Your task to perform on an android device: Search for seafood restaurants on Google Maps Image 0: 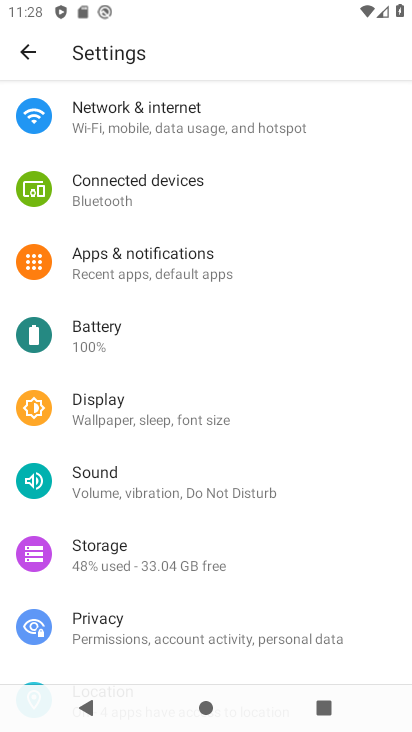
Step 0: press home button
Your task to perform on an android device: Search for seafood restaurants on Google Maps Image 1: 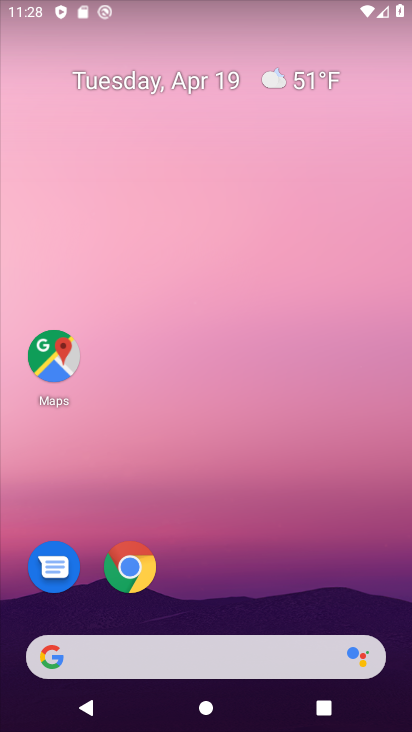
Step 1: click (56, 354)
Your task to perform on an android device: Search for seafood restaurants on Google Maps Image 2: 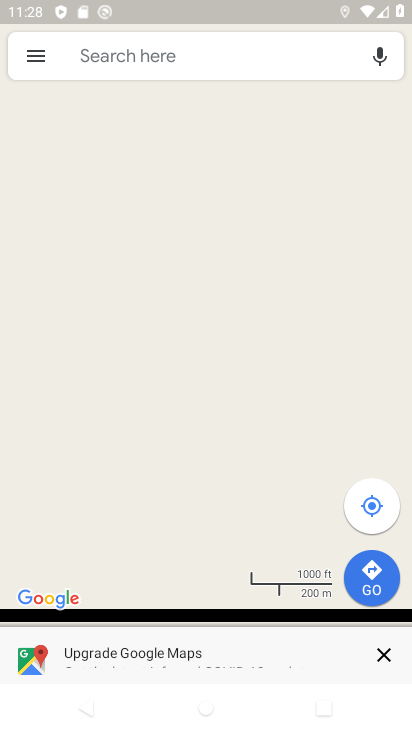
Step 2: click (189, 49)
Your task to perform on an android device: Search for seafood restaurants on Google Maps Image 3: 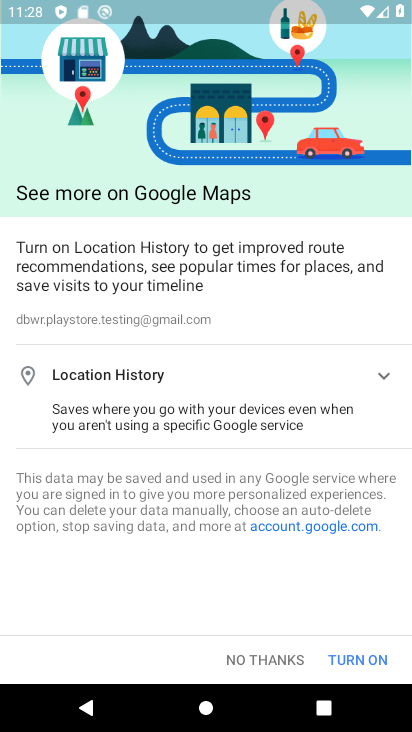
Step 3: type "seafood restaurants"
Your task to perform on an android device: Search for seafood restaurants on Google Maps Image 4: 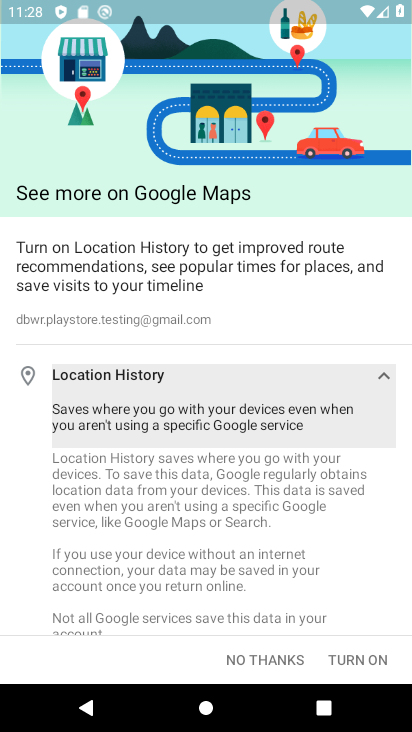
Step 4: click (278, 660)
Your task to perform on an android device: Search for seafood restaurants on Google Maps Image 5: 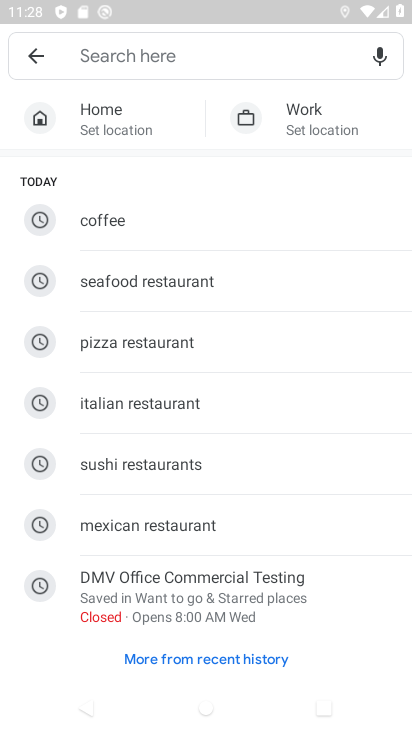
Step 5: click (176, 291)
Your task to perform on an android device: Search for seafood restaurants on Google Maps Image 6: 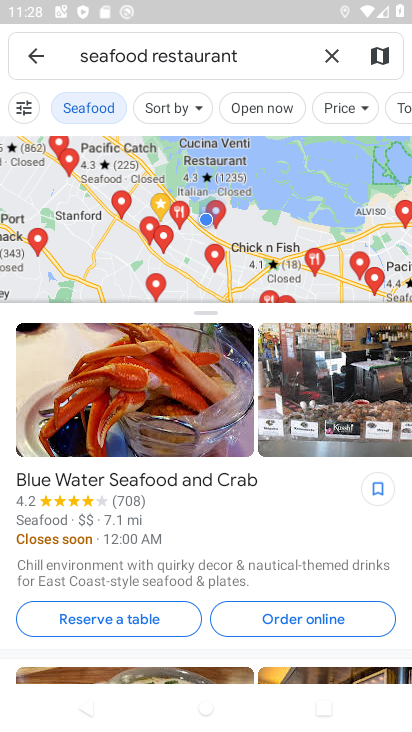
Step 6: task complete